Your task to perform on an android device: Go to sound settings Image 0: 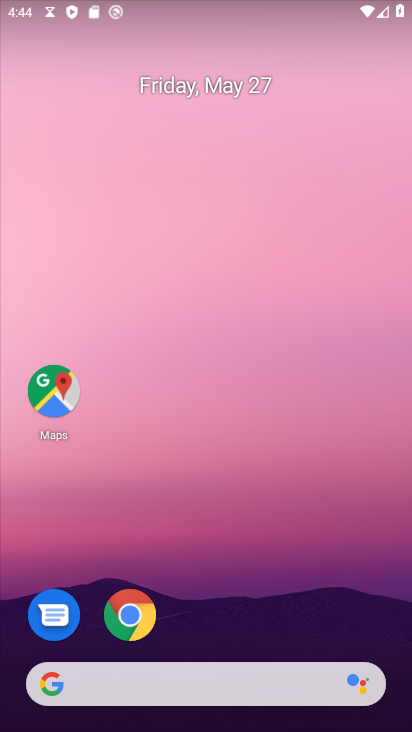
Step 0: drag from (241, 124) to (240, 78)
Your task to perform on an android device: Go to sound settings Image 1: 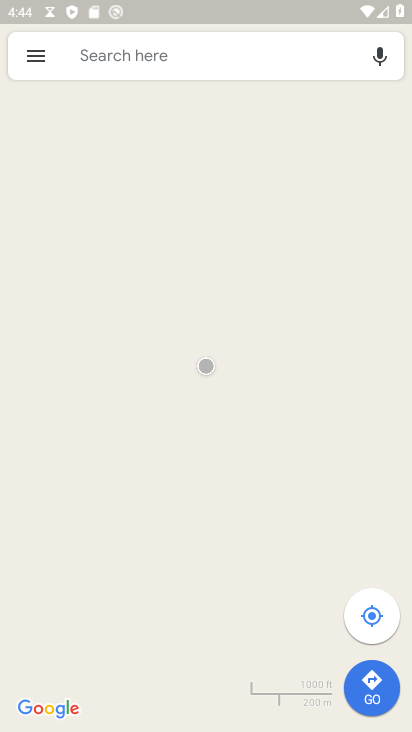
Step 1: press home button
Your task to perform on an android device: Go to sound settings Image 2: 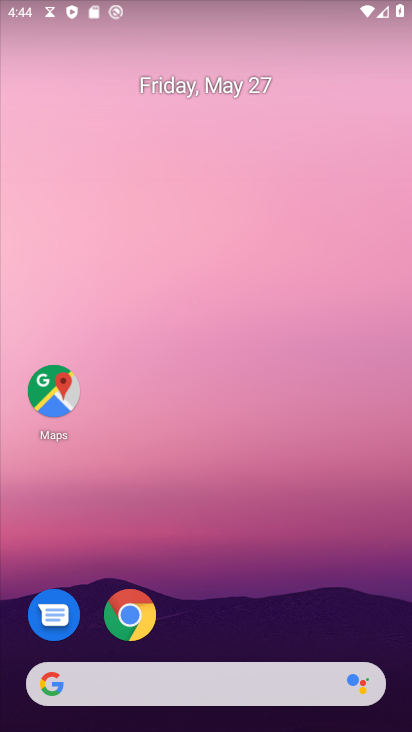
Step 2: drag from (300, 599) to (144, 6)
Your task to perform on an android device: Go to sound settings Image 3: 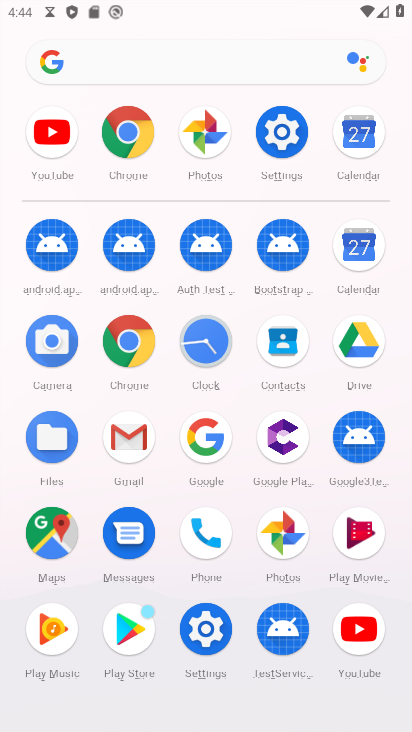
Step 3: click (289, 130)
Your task to perform on an android device: Go to sound settings Image 4: 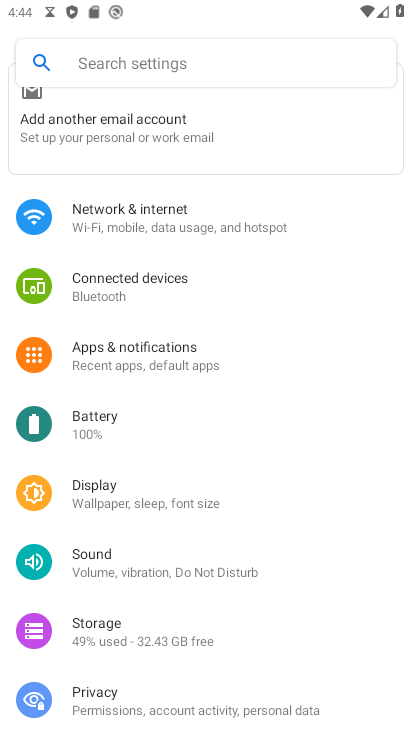
Step 4: click (152, 576)
Your task to perform on an android device: Go to sound settings Image 5: 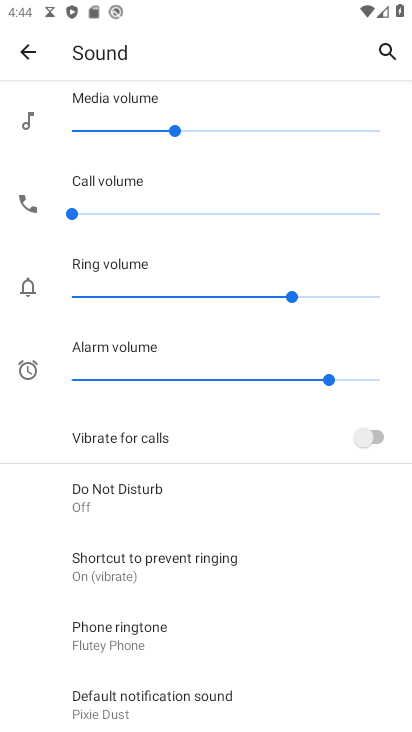
Step 5: task complete